Your task to perform on an android device: Go to accessibility settings Image 0: 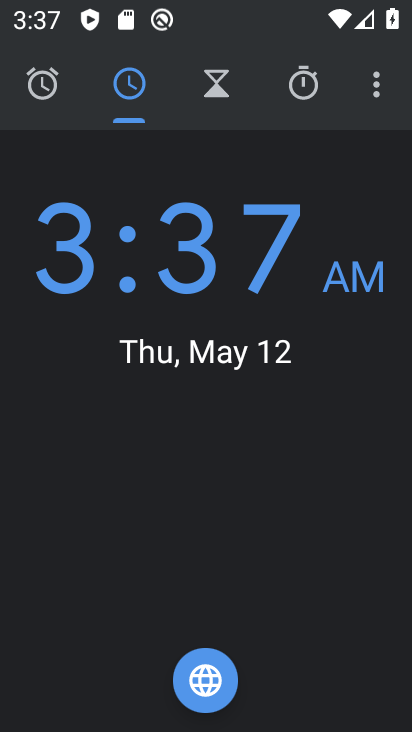
Step 0: press home button
Your task to perform on an android device: Go to accessibility settings Image 1: 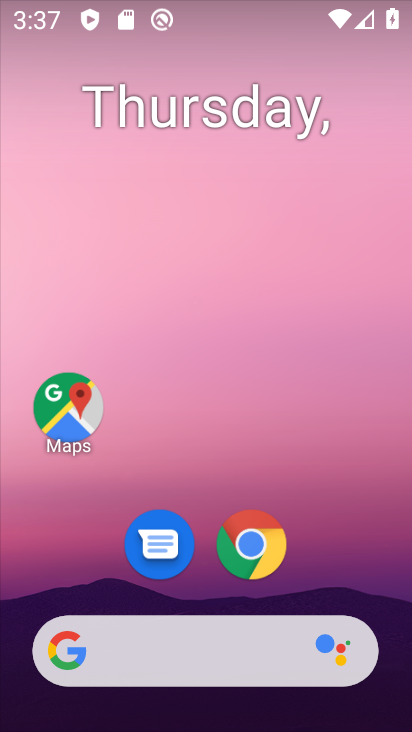
Step 1: drag from (336, 454) to (327, 37)
Your task to perform on an android device: Go to accessibility settings Image 2: 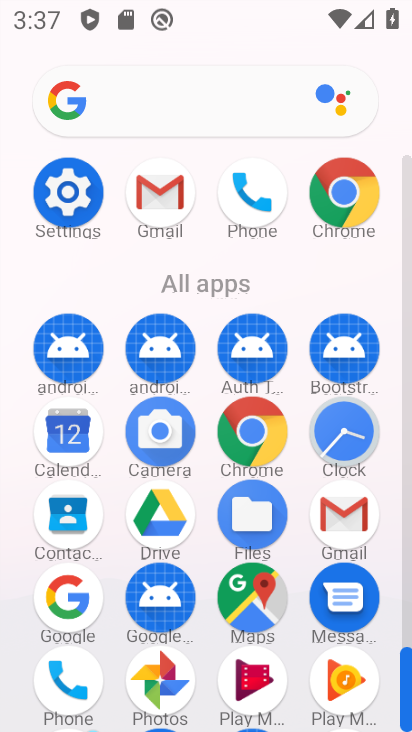
Step 2: click (65, 190)
Your task to perform on an android device: Go to accessibility settings Image 3: 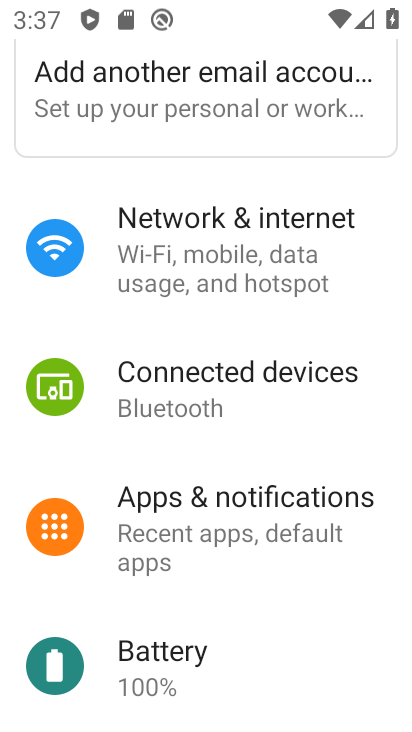
Step 3: drag from (227, 602) to (251, 63)
Your task to perform on an android device: Go to accessibility settings Image 4: 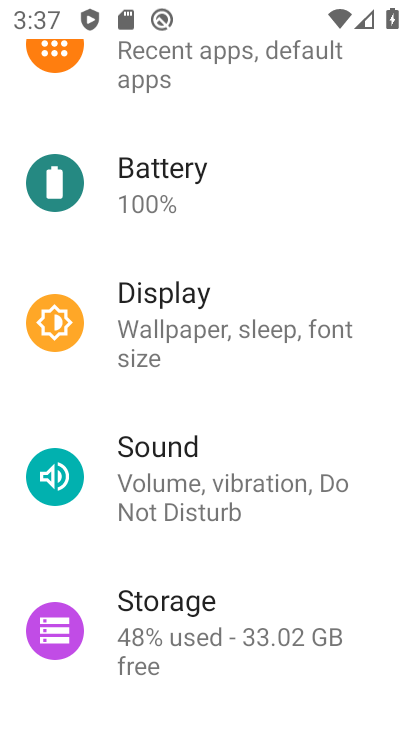
Step 4: drag from (219, 592) to (246, 0)
Your task to perform on an android device: Go to accessibility settings Image 5: 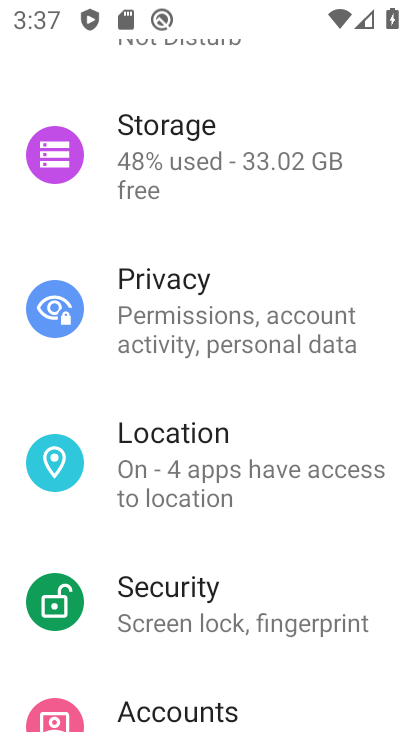
Step 5: drag from (179, 603) to (242, 77)
Your task to perform on an android device: Go to accessibility settings Image 6: 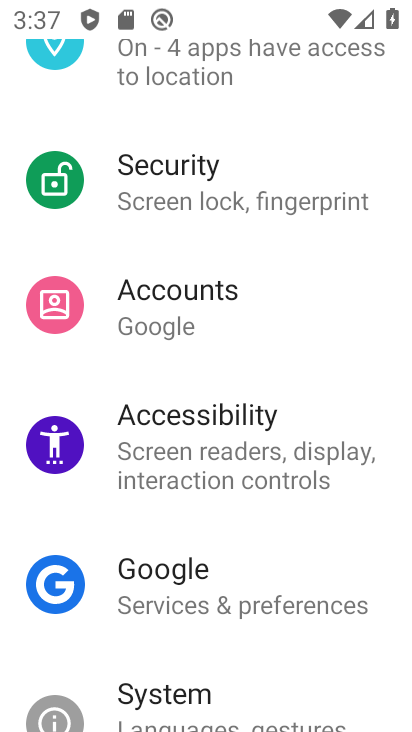
Step 6: drag from (154, 679) to (230, 135)
Your task to perform on an android device: Go to accessibility settings Image 7: 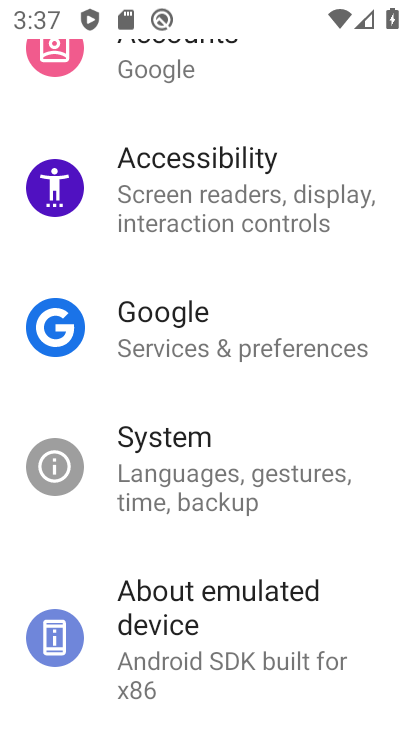
Step 7: click (209, 170)
Your task to perform on an android device: Go to accessibility settings Image 8: 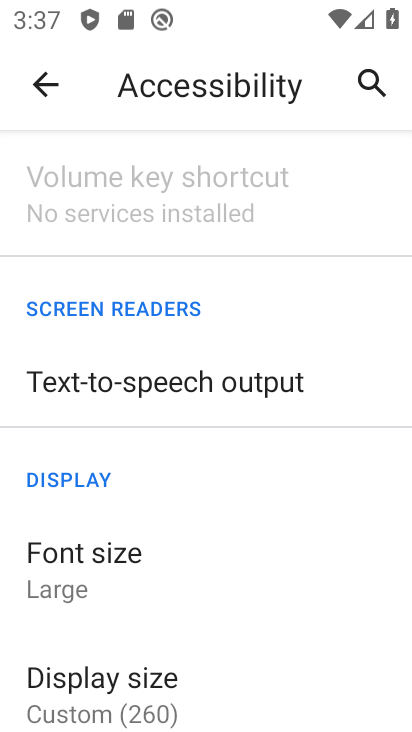
Step 8: task complete